Your task to perform on an android device: Go to Google Image 0: 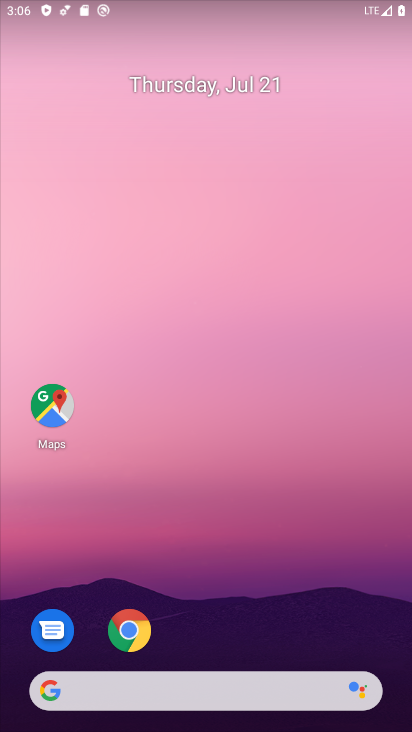
Step 0: drag from (260, 670) to (205, 107)
Your task to perform on an android device: Go to Google Image 1: 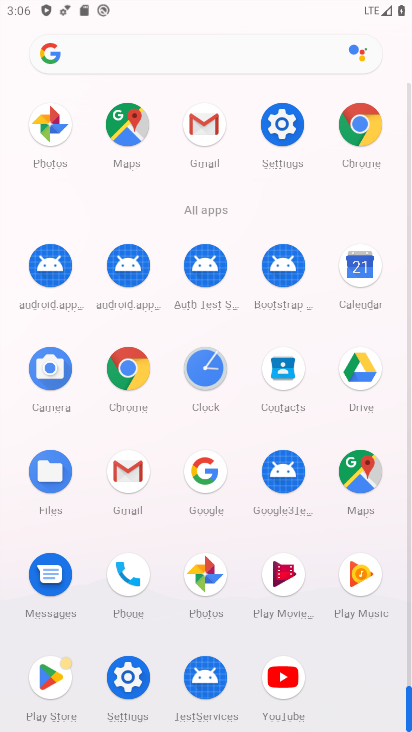
Step 1: click (201, 462)
Your task to perform on an android device: Go to Google Image 2: 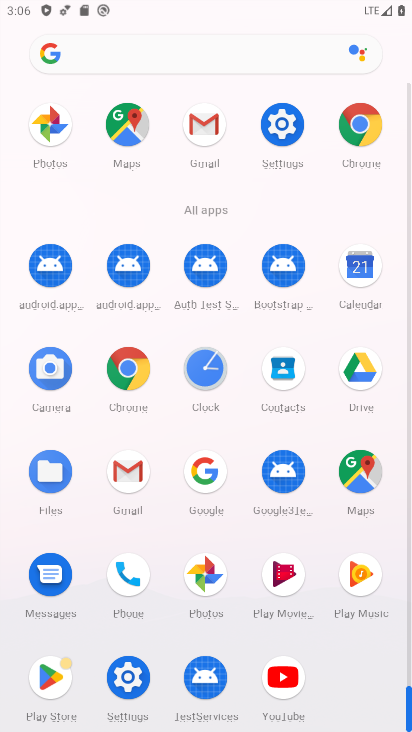
Step 2: click (206, 476)
Your task to perform on an android device: Go to Google Image 3: 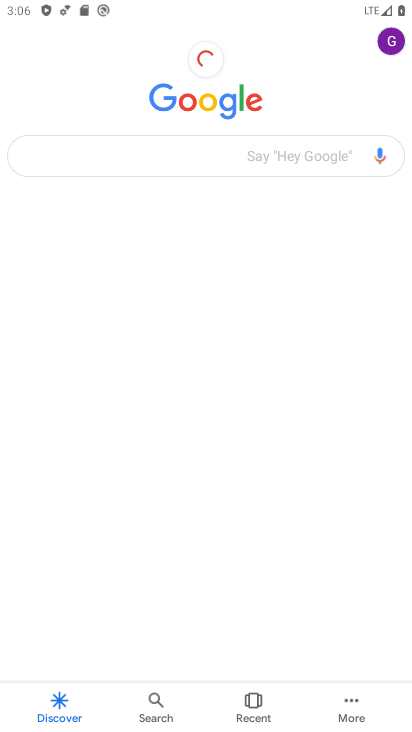
Step 3: task complete